Your task to perform on an android device: Open eBay Image 0: 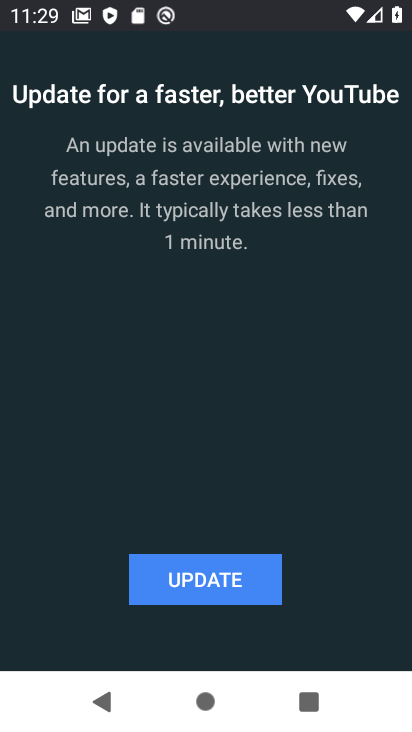
Step 0: press home button
Your task to perform on an android device: Open eBay Image 1: 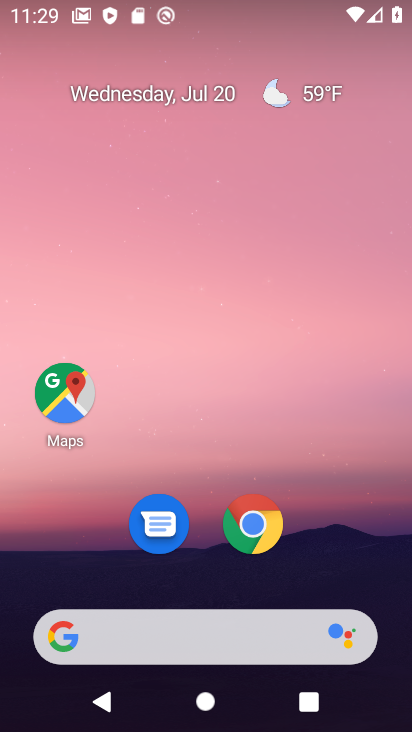
Step 1: click (259, 530)
Your task to perform on an android device: Open eBay Image 2: 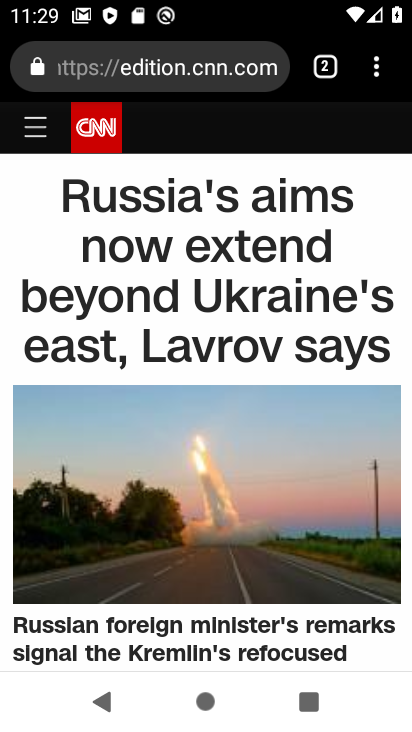
Step 2: drag from (376, 68) to (250, 139)
Your task to perform on an android device: Open eBay Image 3: 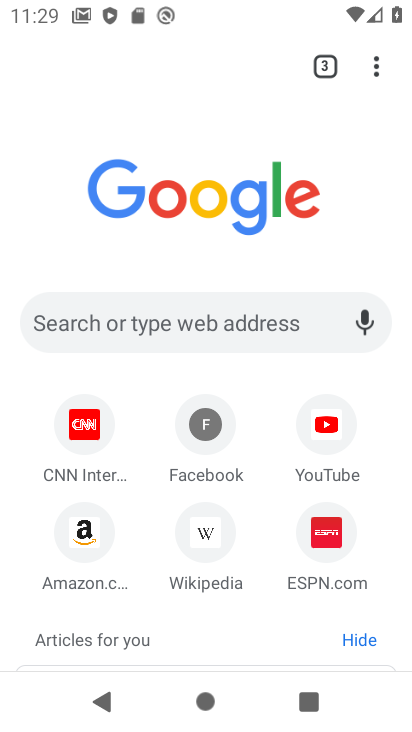
Step 3: click (167, 317)
Your task to perform on an android device: Open eBay Image 4: 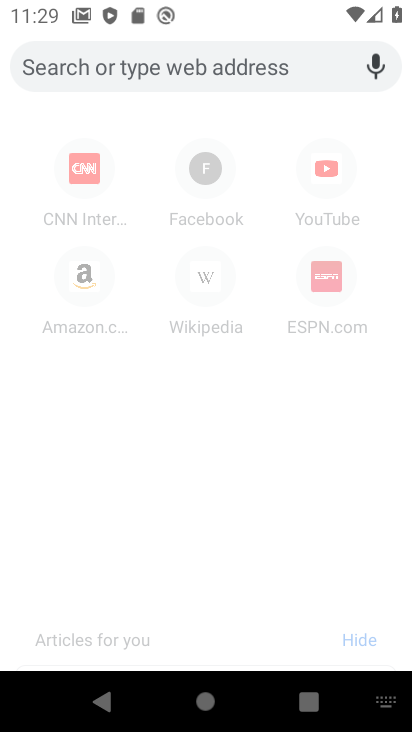
Step 4: type "ebay"
Your task to perform on an android device: Open eBay Image 5: 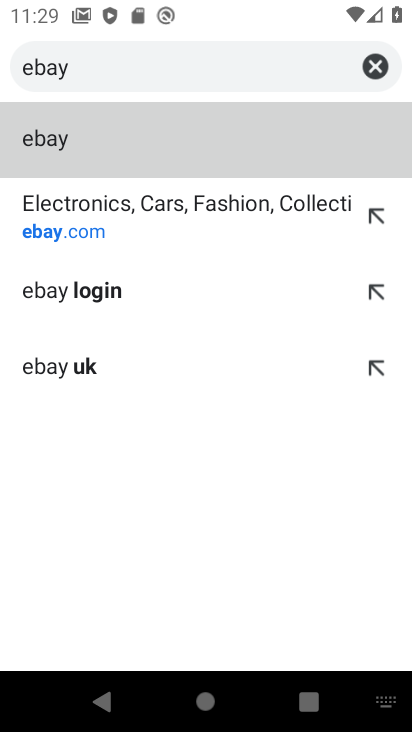
Step 5: click (142, 205)
Your task to perform on an android device: Open eBay Image 6: 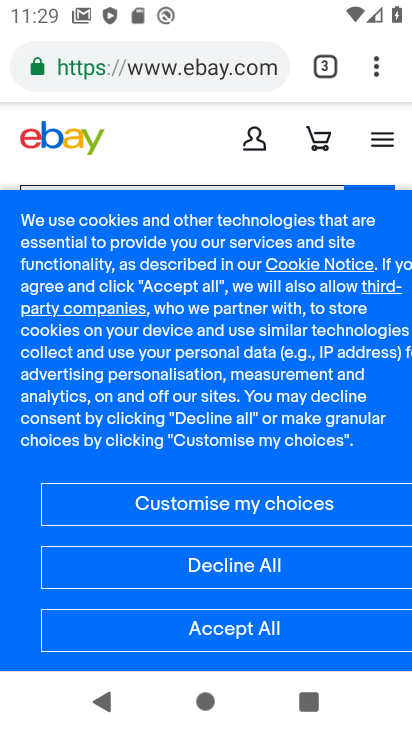
Step 6: click (299, 635)
Your task to perform on an android device: Open eBay Image 7: 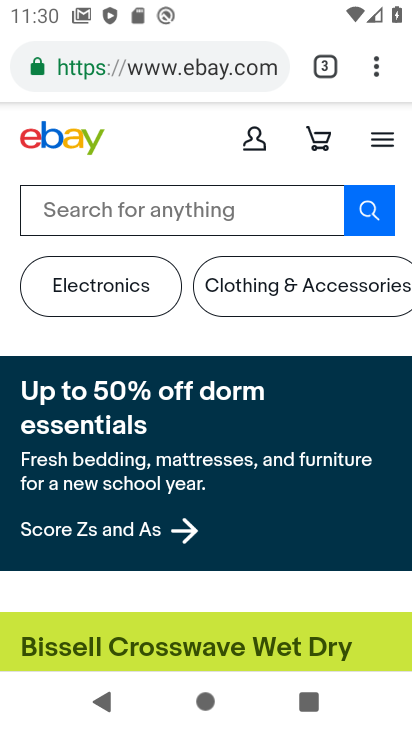
Step 7: task complete